Your task to perform on an android device: turn on data saver in the chrome app Image 0: 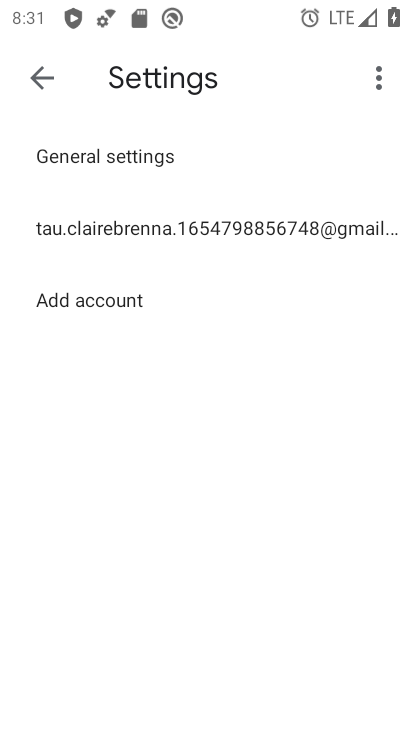
Step 0: press home button
Your task to perform on an android device: turn on data saver in the chrome app Image 1: 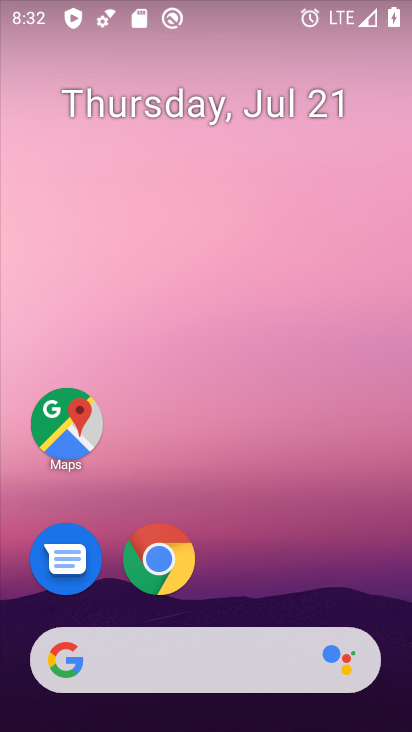
Step 1: drag from (349, 574) to (379, 111)
Your task to perform on an android device: turn on data saver in the chrome app Image 2: 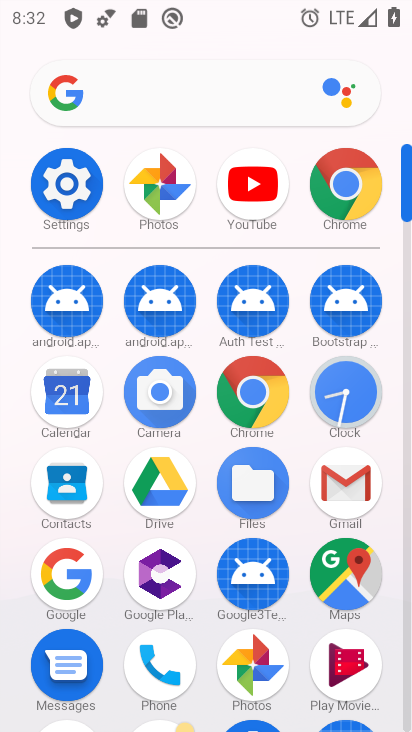
Step 2: click (351, 200)
Your task to perform on an android device: turn on data saver in the chrome app Image 3: 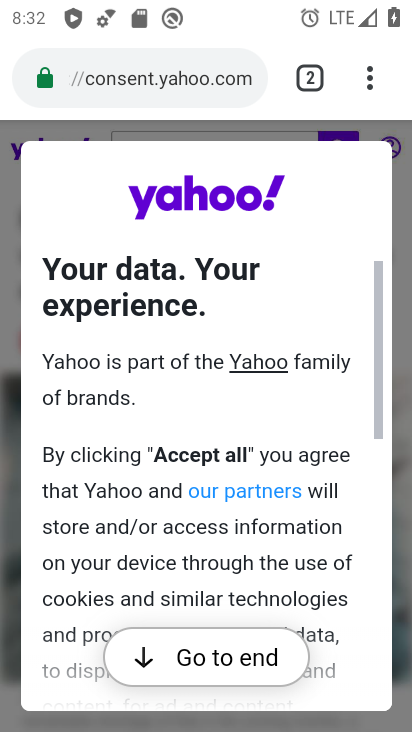
Step 3: click (371, 80)
Your task to perform on an android device: turn on data saver in the chrome app Image 4: 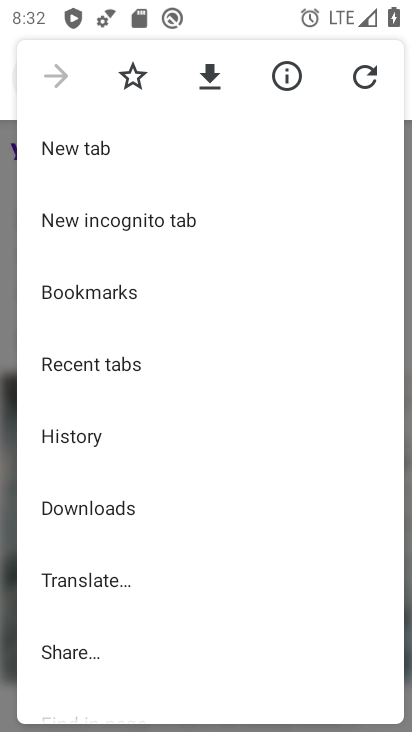
Step 4: drag from (310, 451) to (308, 362)
Your task to perform on an android device: turn on data saver in the chrome app Image 5: 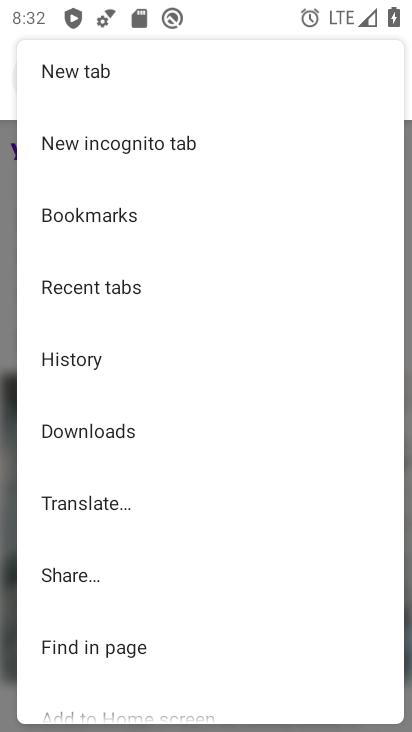
Step 5: drag from (289, 508) to (307, 410)
Your task to perform on an android device: turn on data saver in the chrome app Image 6: 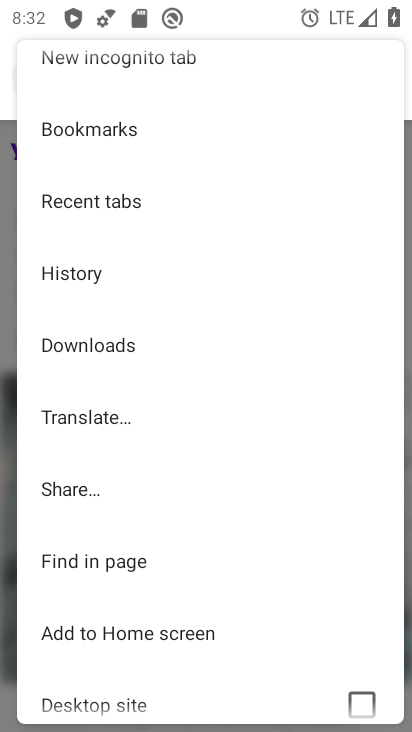
Step 6: drag from (315, 554) to (310, 451)
Your task to perform on an android device: turn on data saver in the chrome app Image 7: 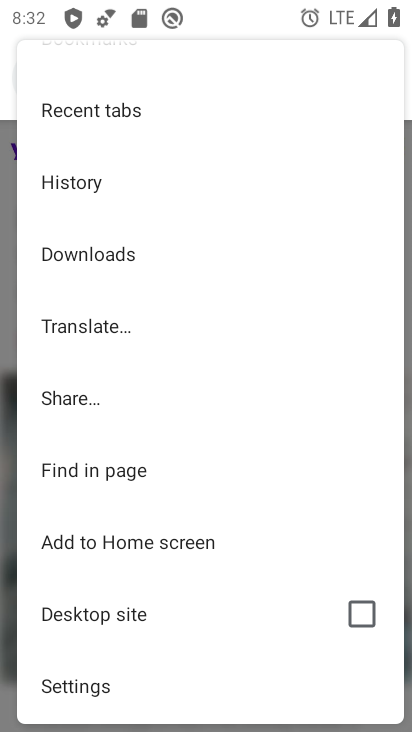
Step 7: drag from (273, 575) to (290, 470)
Your task to perform on an android device: turn on data saver in the chrome app Image 8: 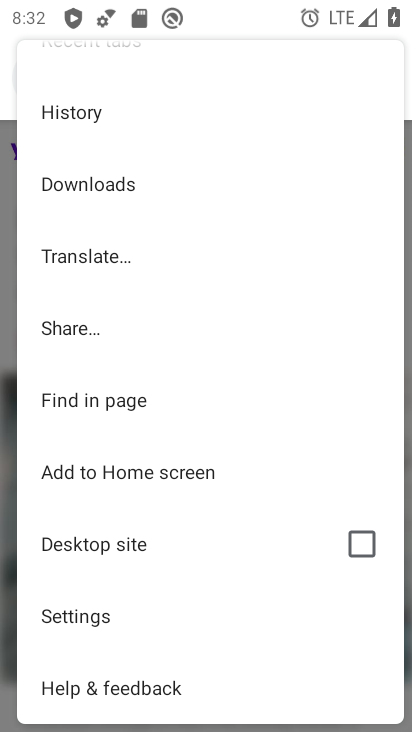
Step 8: click (229, 622)
Your task to perform on an android device: turn on data saver in the chrome app Image 9: 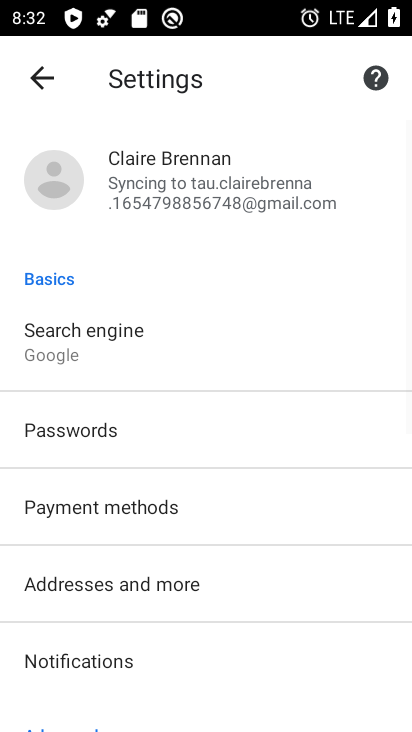
Step 9: drag from (266, 598) to (290, 499)
Your task to perform on an android device: turn on data saver in the chrome app Image 10: 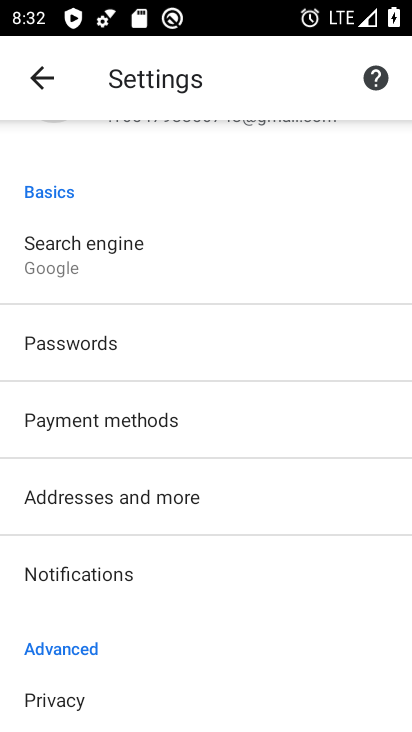
Step 10: drag from (282, 583) to (294, 518)
Your task to perform on an android device: turn on data saver in the chrome app Image 11: 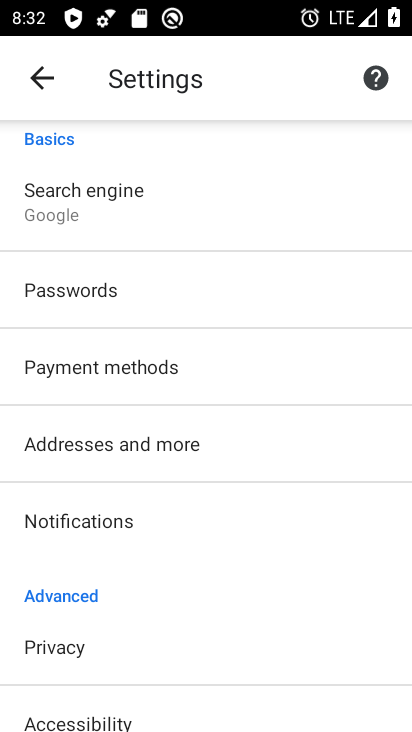
Step 11: drag from (297, 579) to (305, 482)
Your task to perform on an android device: turn on data saver in the chrome app Image 12: 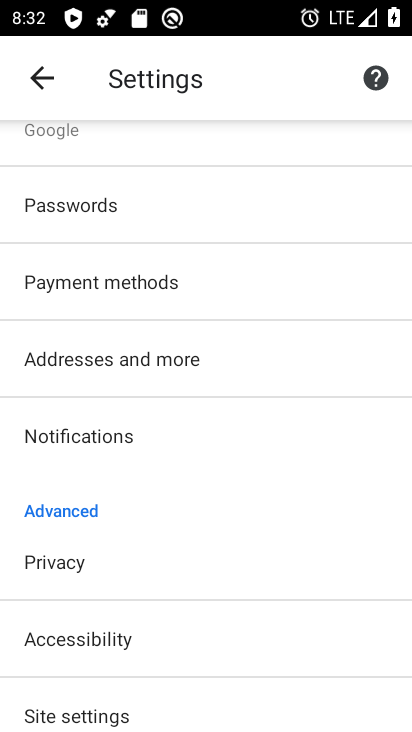
Step 12: drag from (325, 547) to (326, 419)
Your task to perform on an android device: turn on data saver in the chrome app Image 13: 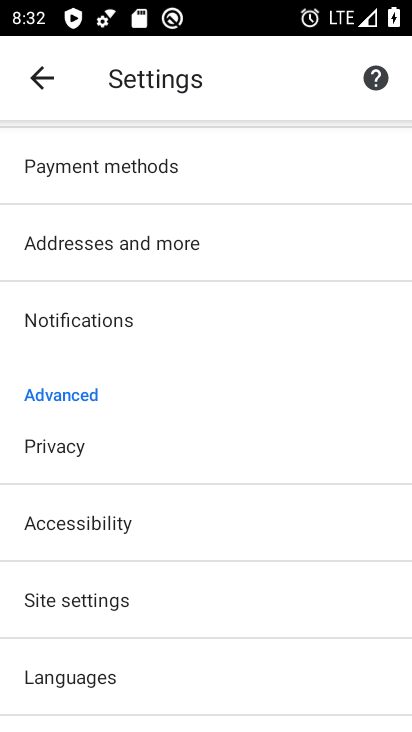
Step 13: drag from (244, 593) to (232, 441)
Your task to perform on an android device: turn on data saver in the chrome app Image 14: 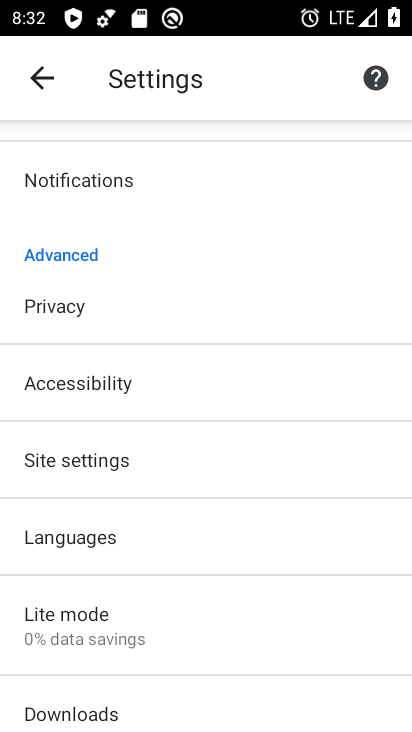
Step 14: click (191, 620)
Your task to perform on an android device: turn on data saver in the chrome app Image 15: 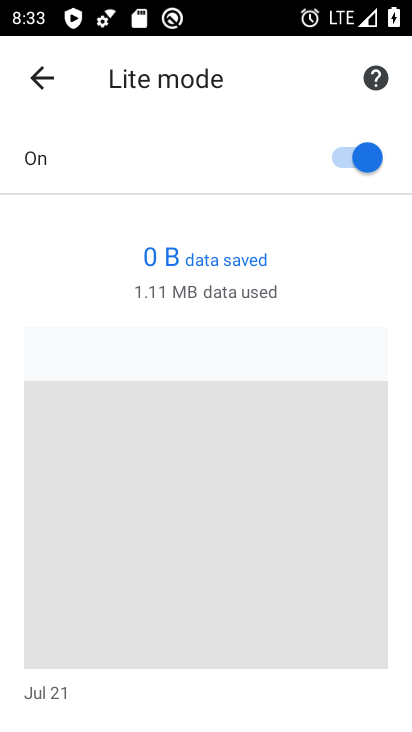
Step 15: task complete